Your task to perform on an android device: Search for Italian restaurants on Maps Image 0: 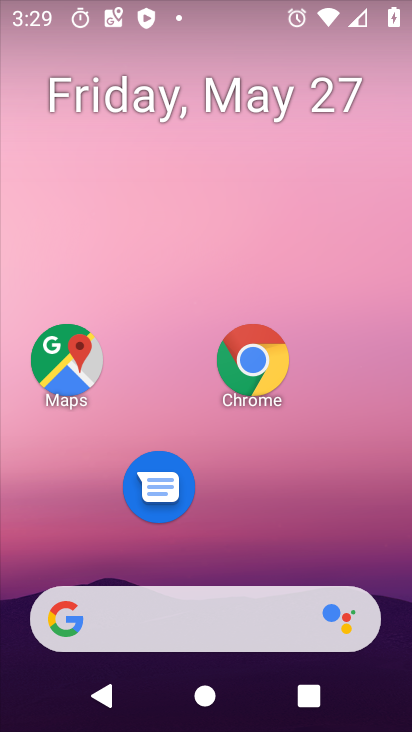
Step 0: click (60, 365)
Your task to perform on an android device: Search for Italian restaurants on Maps Image 1: 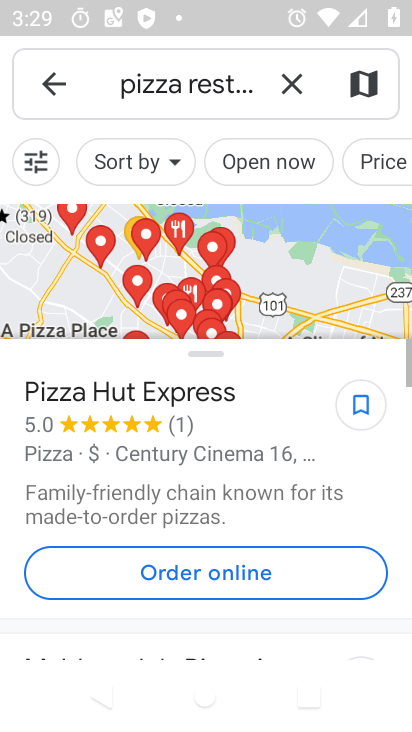
Step 1: click (295, 81)
Your task to perform on an android device: Search for Italian restaurants on Maps Image 2: 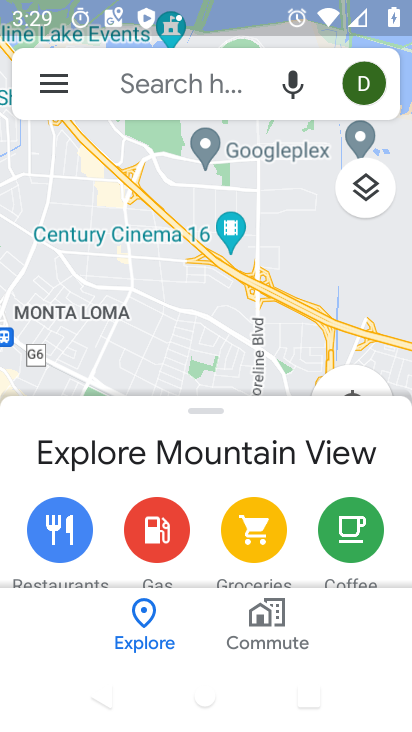
Step 2: click (192, 85)
Your task to perform on an android device: Search for Italian restaurants on Maps Image 3: 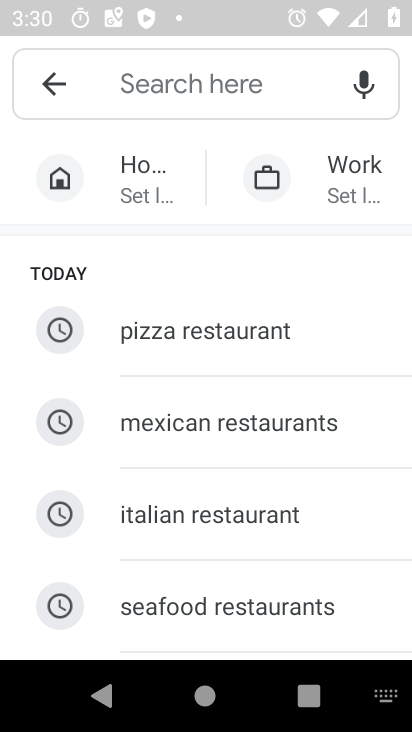
Step 3: click (213, 525)
Your task to perform on an android device: Search for Italian restaurants on Maps Image 4: 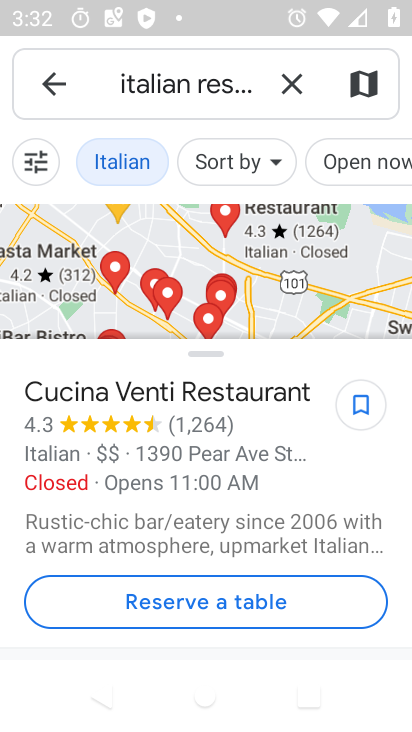
Step 4: task complete